Your task to perform on an android device: Show me productivity apps on the Play Store Image 0: 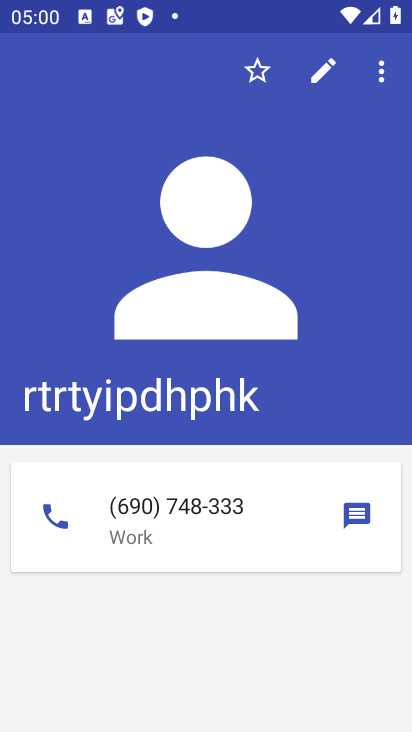
Step 0: press home button
Your task to perform on an android device: Show me productivity apps on the Play Store Image 1: 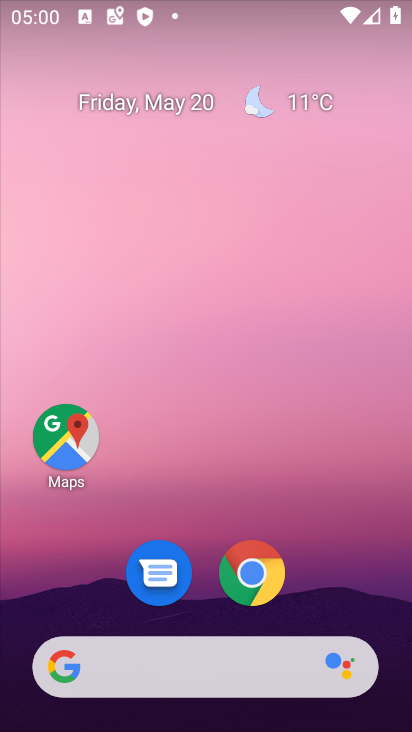
Step 1: drag from (394, 630) to (325, 7)
Your task to perform on an android device: Show me productivity apps on the Play Store Image 2: 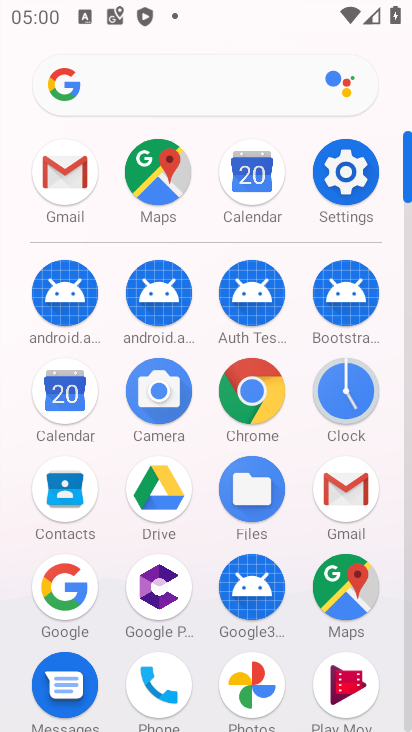
Step 2: click (410, 701)
Your task to perform on an android device: Show me productivity apps on the Play Store Image 3: 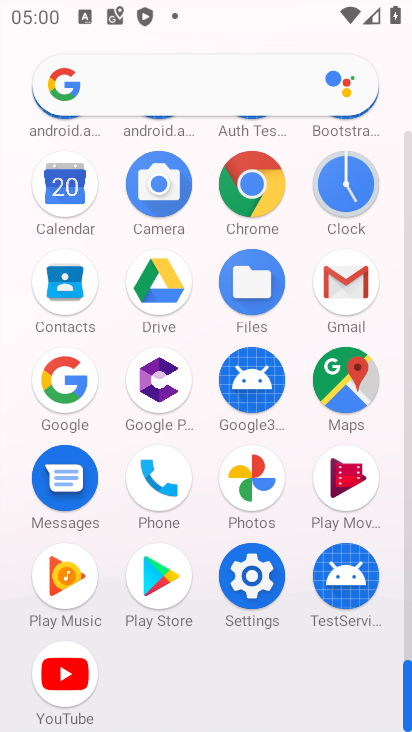
Step 3: click (173, 578)
Your task to perform on an android device: Show me productivity apps on the Play Store Image 4: 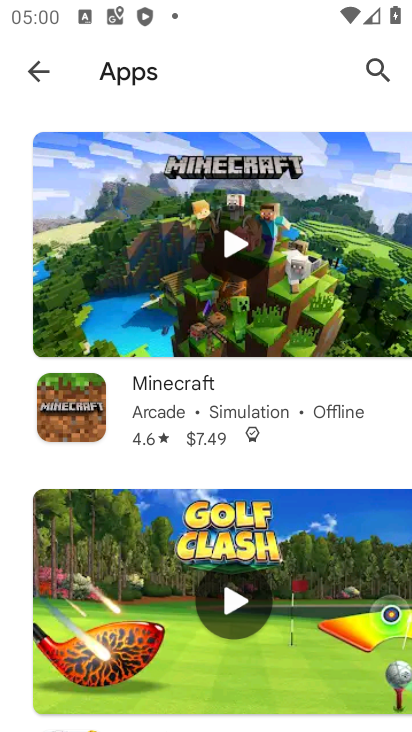
Step 4: press back button
Your task to perform on an android device: Show me productivity apps on the Play Store Image 5: 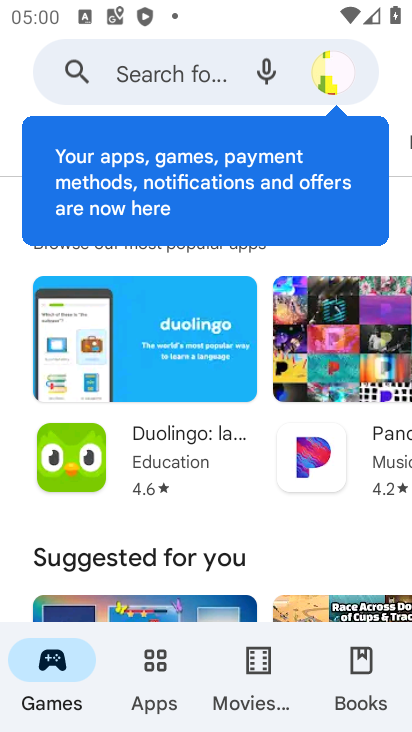
Step 5: click (162, 671)
Your task to perform on an android device: Show me productivity apps on the Play Store Image 6: 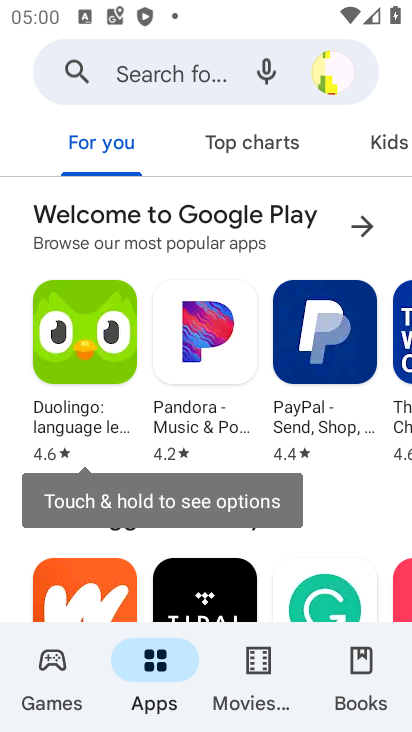
Step 6: drag from (395, 156) to (183, 151)
Your task to perform on an android device: Show me productivity apps on the Play Store Image 7: 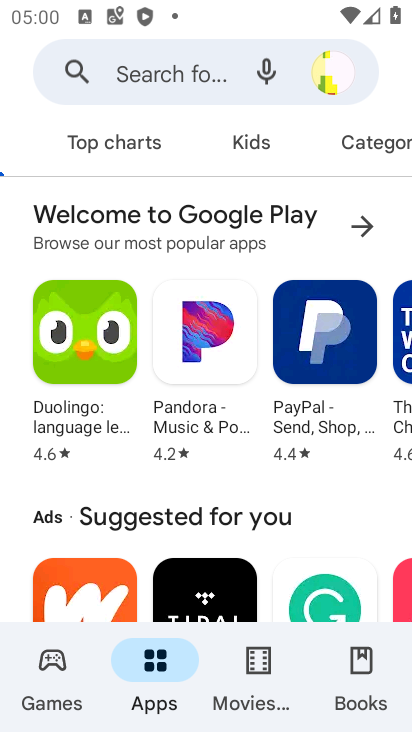
Step 7: click (378, 140)
Your task to perform on an android device: Show me productivity apps on the Play Store Image 8: 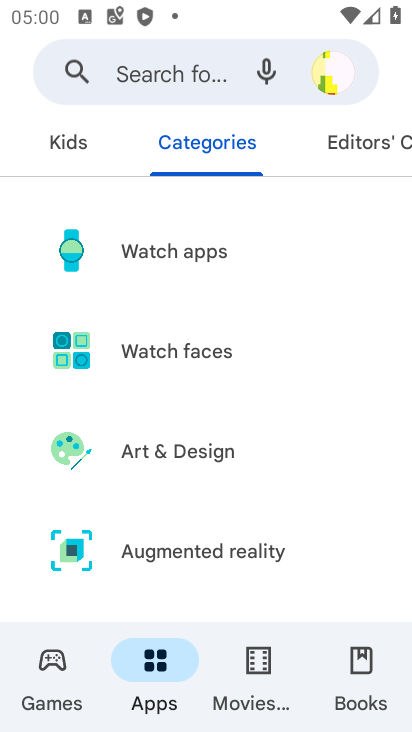
Step 8: drag from (234, 559) to (243, 144)
Your task to perform on an android device: Show me productivity apps on the Play Store Image 9: 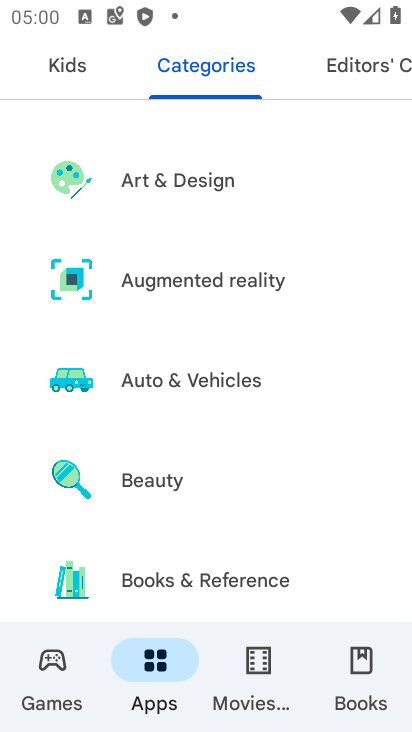
Step 9: drag from (285, 575) to (269, 67)
Your task to perform on an android device: Show me productivity apps on the Play Store Image 10: 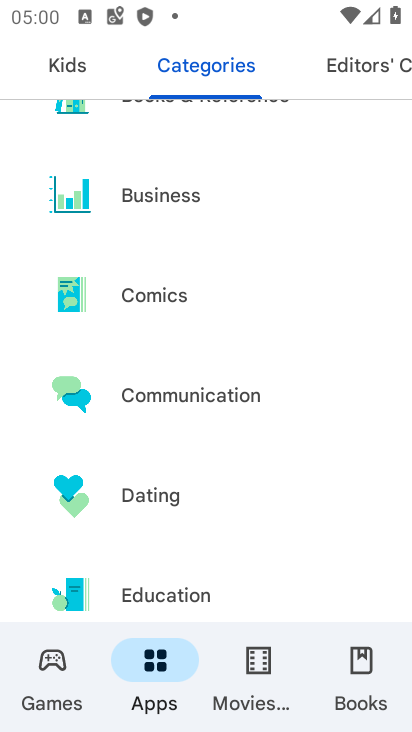
Step 10: drag from (282, 585) to (268, 107)
Your task to perform on an android device: Show me productivity apps on the Play Store Image 11: 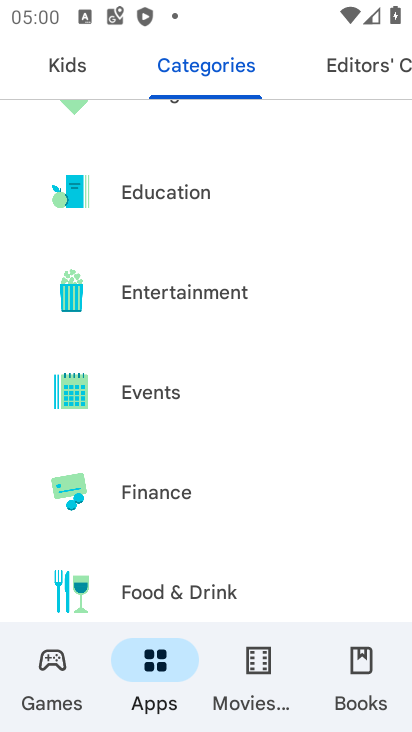
Step 11: drag from (283, 570) to (272, 67)
Your task to perform on an android device: Show me productivity apps on the Play Store Image 12: 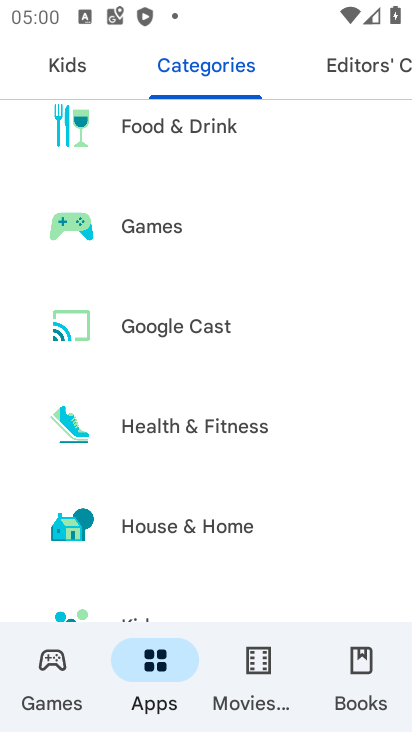
Step 12: drag from (292, 570) to (269, 104)
Your task to perform on an android device: Show me productivity apps on the Play Store Image 13: 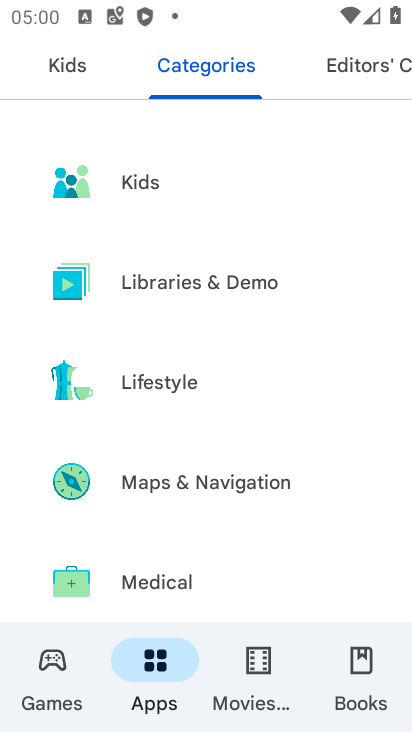
Step 13: drag from (281, 582) to (268, 142)
Your task to perform on an android device: Show me productivity apps on the Play Store Image 14: 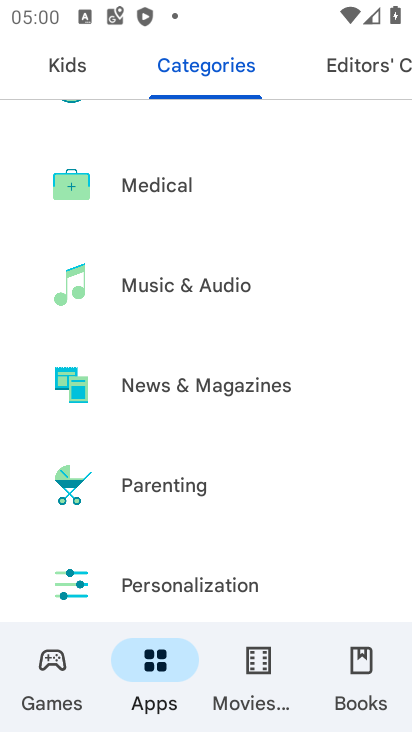
Step 14: drag from (296, 570) to (265, 92)
Your task to perform on an android device: Show me productivity apps on the Play Store Image 15: 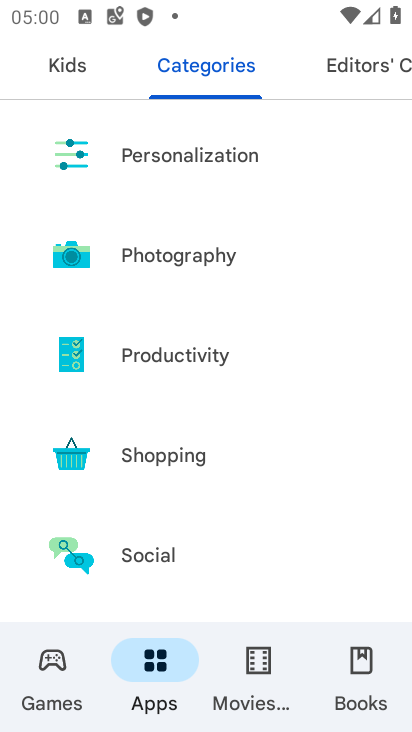
Step 15: click (167, 351)
Your task to perform on an android device: Show me productivity apps on the Play Store Image 16: 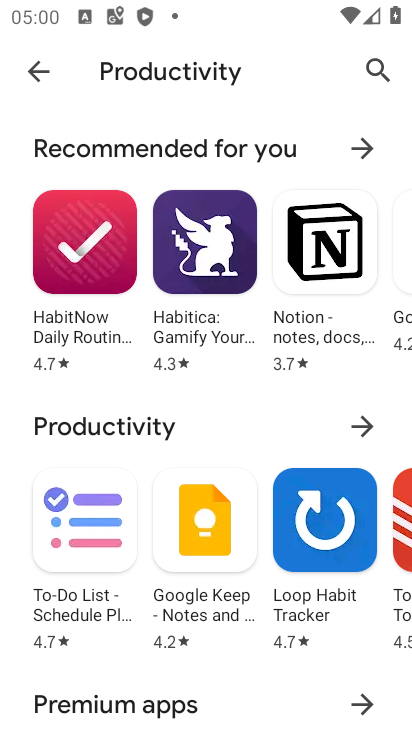
Step 16: drag from (264, 640) to (248, 256)
Your task to perform on an android device: Show me productivity apps on the Play Store Image 17: 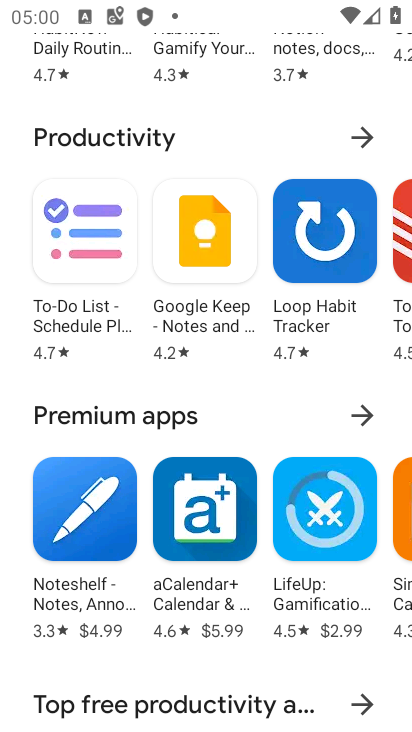
Step 17: drag from (267, 673) to (245, 307)
Your task to perform on an android device: Show me productivity apps on the Play Store Image 18: 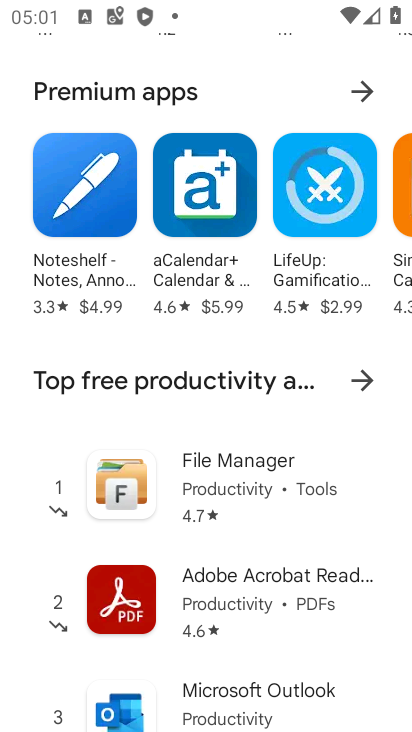
Step 18: click (353, 373)
Your task to perform on an android device: Show me productivity apps on the Play Store Image 19: 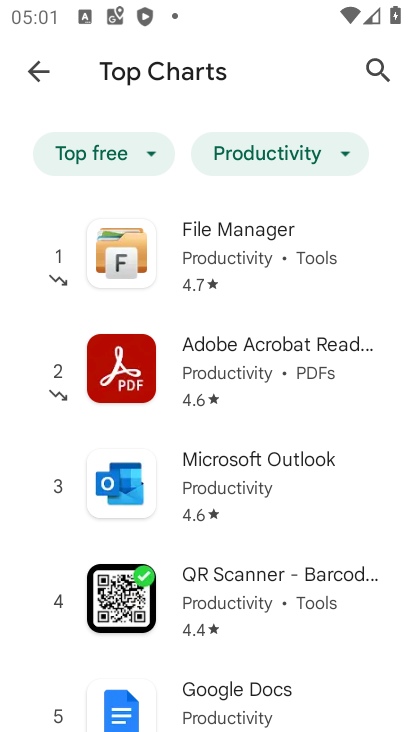
Step 19: task complete